Your task to perform on an android device: Open location settings Image 0: 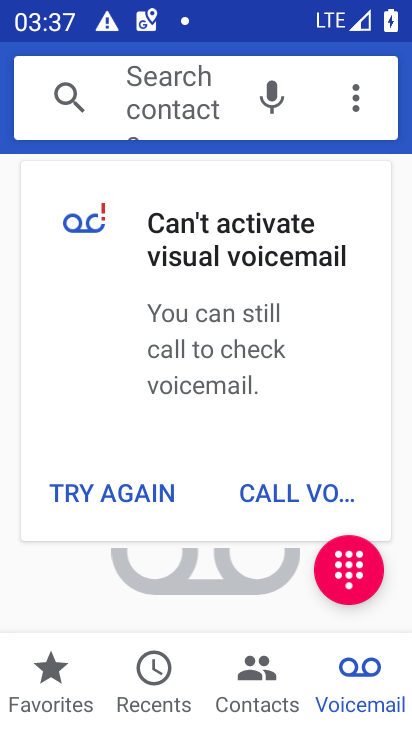
Step 0: press home button
Your task to perform on an android device: Open location settings Image 1: 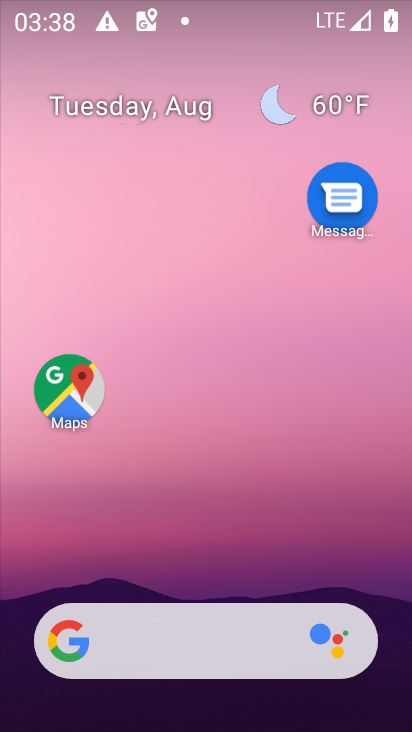
Step 1: drag from (181, 567) to (110, 6)
Your task to perform on an android device: Open location settings Image 2: 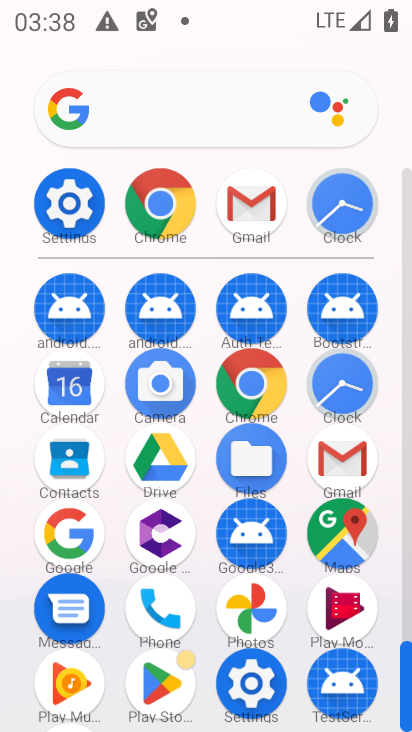
Step 2: click (53, 189)
Your task to perform on an android device: Open location settings Image 3: 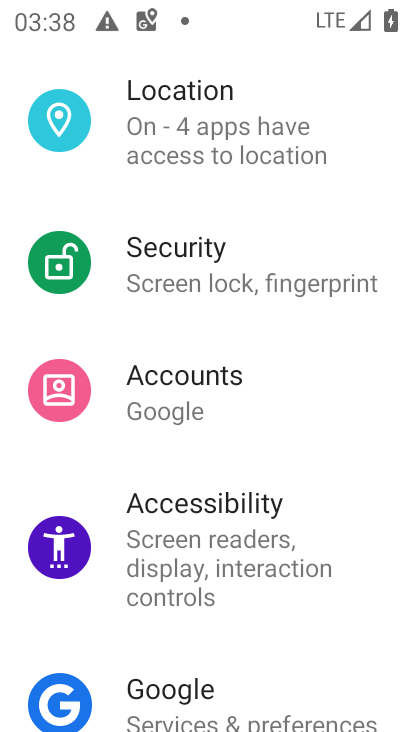
Step 3: task complete